Your task to perform on an android device: Search for sushi restaurants on Maps Image 0: 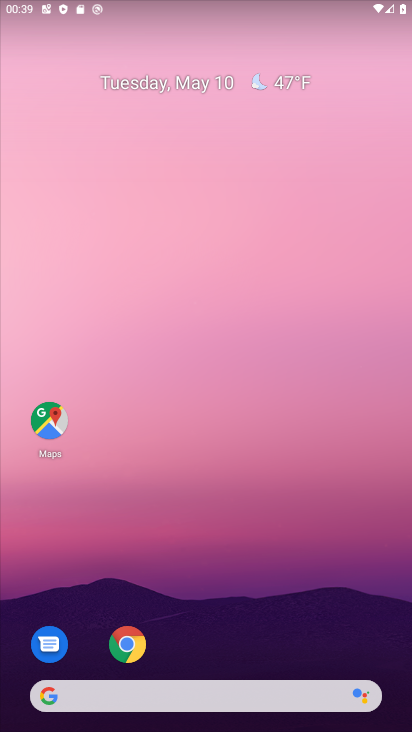
Step 0: click (50, 420)
Your task to perform on an android device: Search for sushi restaurants on Maps Image 1: 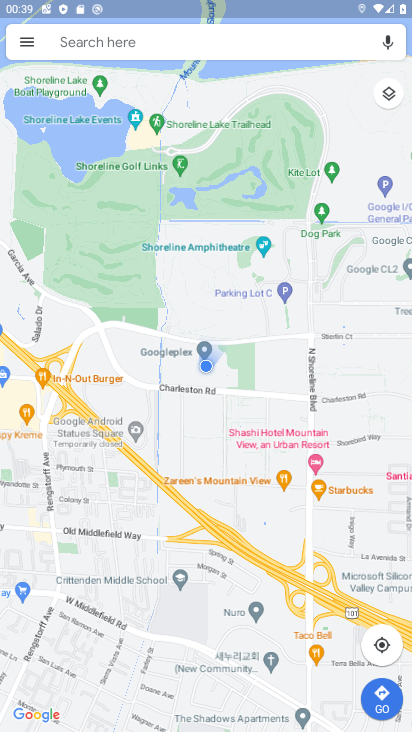
Step 1: click (88, 45)
Your task to perform on an android device: Search for sushi restaurants on Maps Image 2: 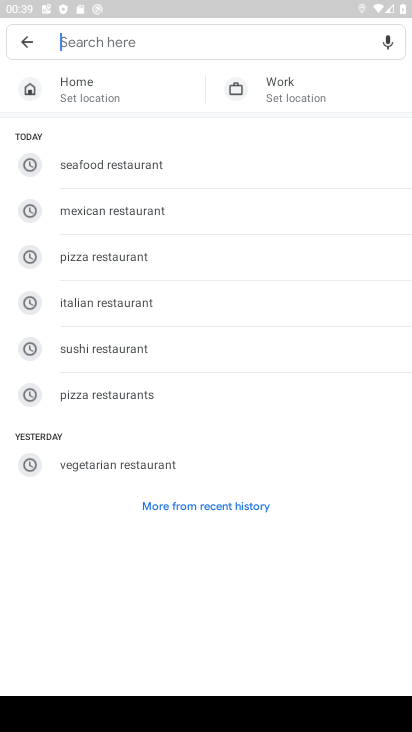
Step 2: click (117, 362)
Your task to perform on an android device: Search for sushi restaurants on Maps Image 3: 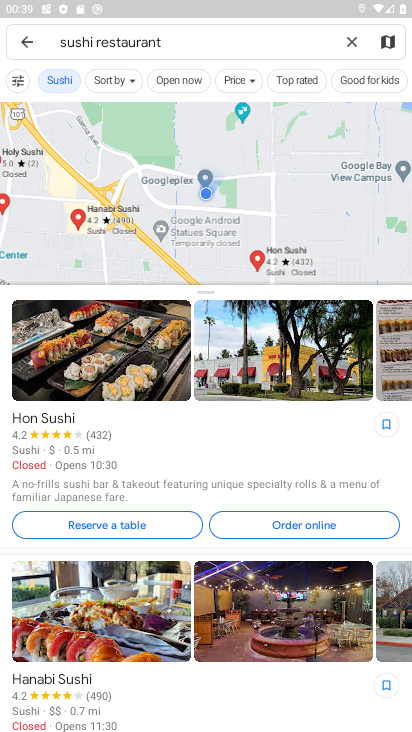
Step 3: task complete